Your task to perform on an android device: Search for the best rated tool bag on Lowe's. Image 0: 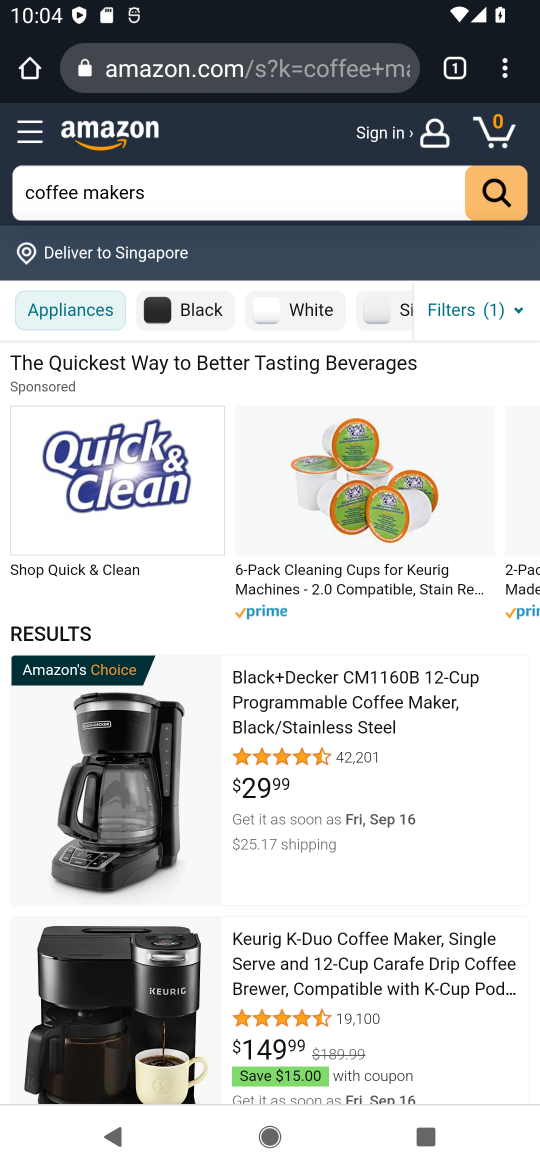
Step 0: press home button
Your task to perform on an android device: Search for the best rated tool bag on Lowe's. Image 1: 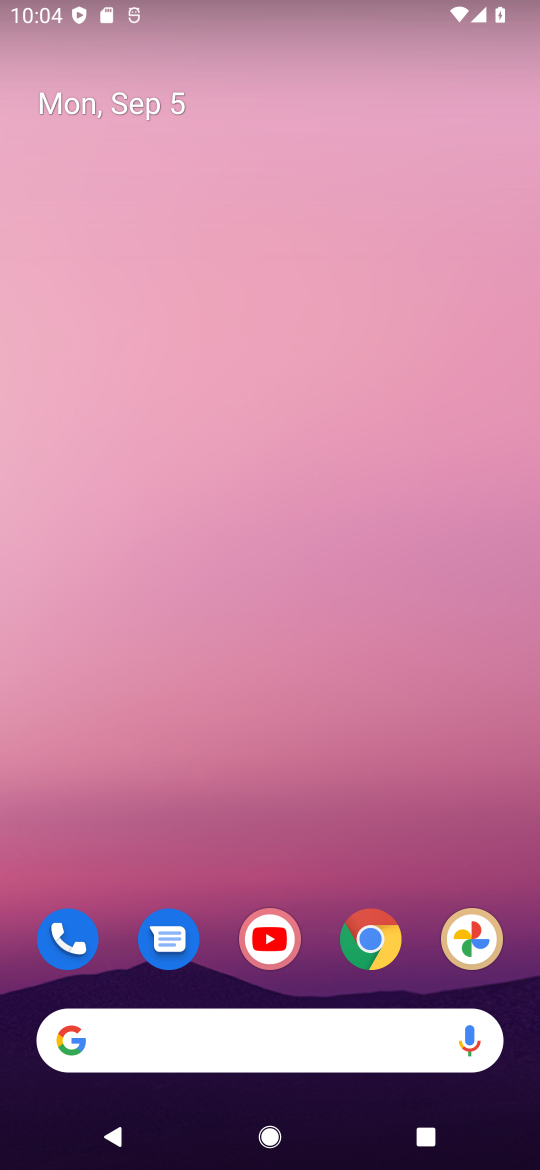
Step 1: drag from (321, 909) to (165, 52)
Your task to perform on an android device: Search for the best rated tool bag on Lowe's. Image 2: 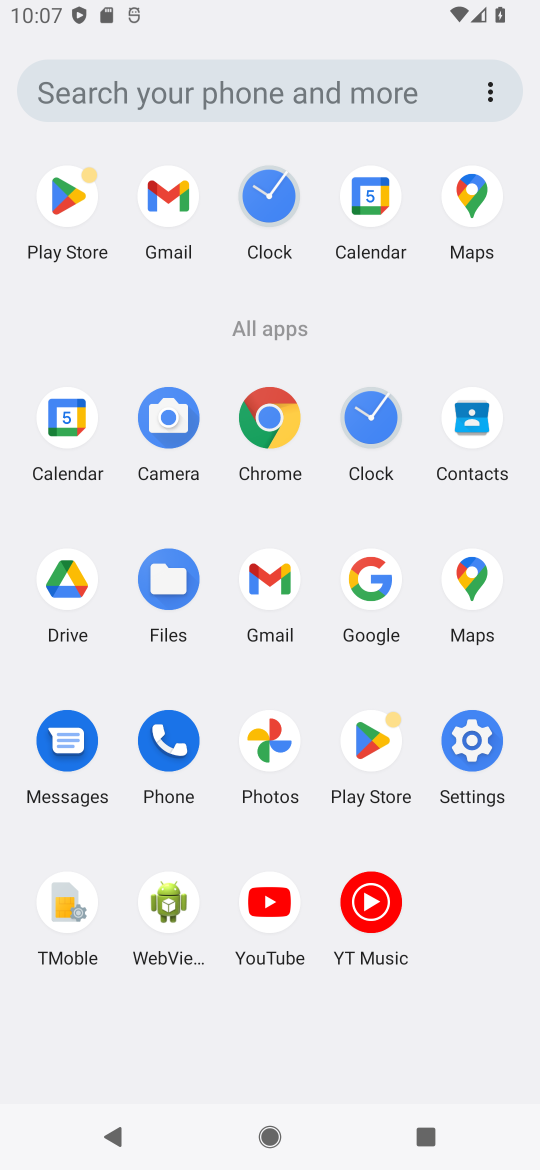
Step 2: click (279, 427)
Your task to perform on an android device: Search for the best rated tool bag on Lowe's. Image 3: 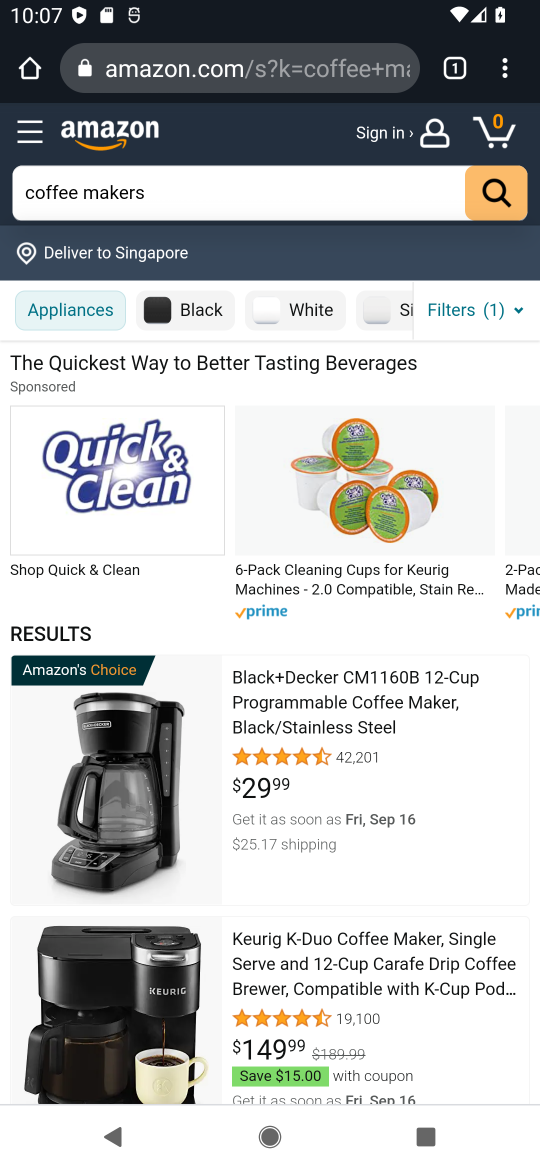
Step 3: click (214, 63)
Your task to perform on an android device: Search for the best rated tool bag on Lowe's. Image 4: 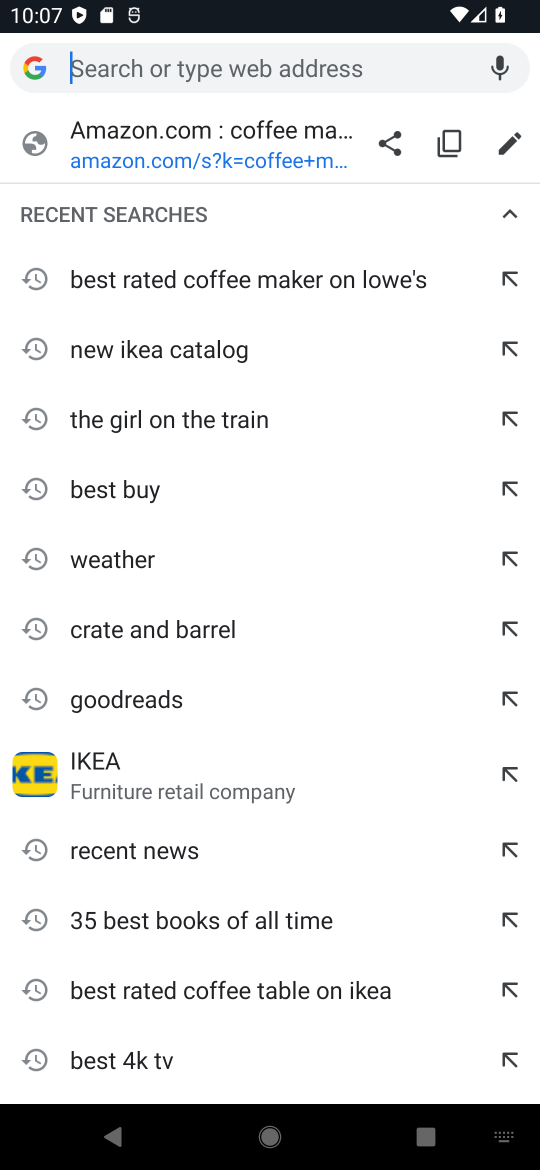
Step 4: type " best rated tool bag on Lowe's."
Your task to perform on an android device: Search for the best rated tool bag on Lowe's. Image 5: 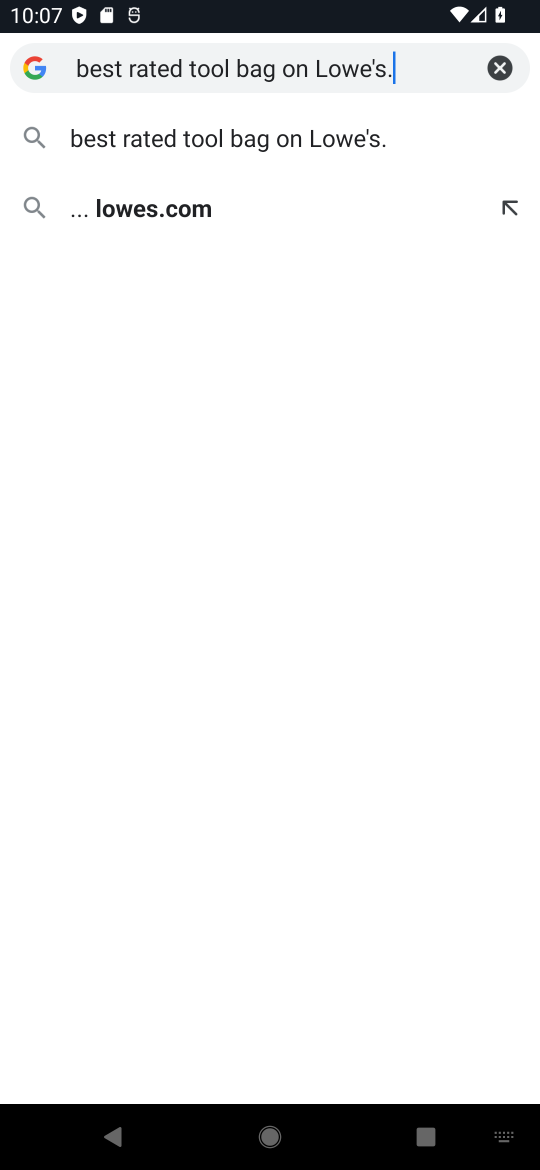
Step 5: click (204, 200)
Your task to perform on an android device: Search for the best rated tool bag on Lowe's. Image 6: 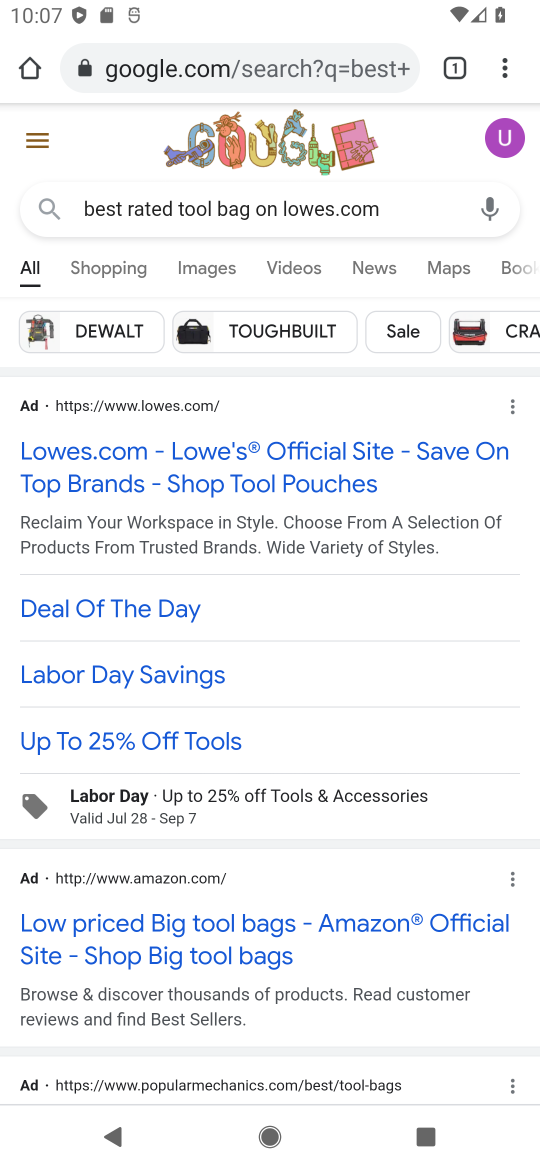
Step 6: task complete